Your task to perform on an android device: Search for Mexican restaurants on Maps Image 0: 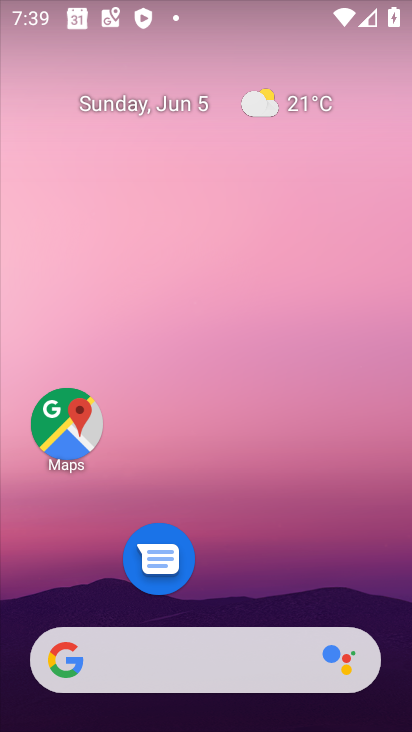
Step 0: click (43, 429)
Your task to perform on an android device: Search for Mexican restaurants on Maps Image 1: 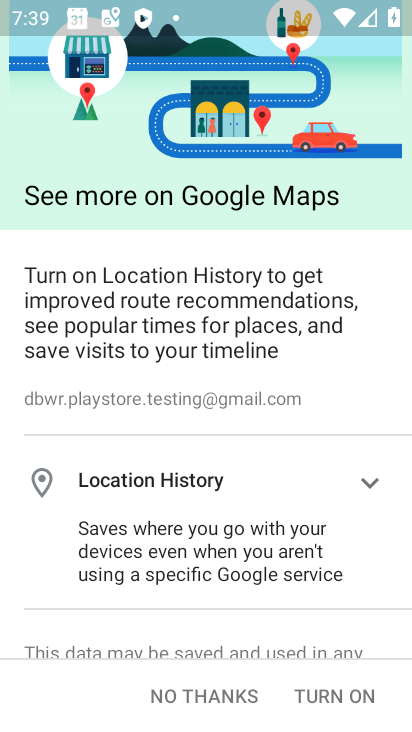
Step 1: click (354, 706)
Your task to perform on an android device: Search for Mexican restaurants on Maps Image 2: 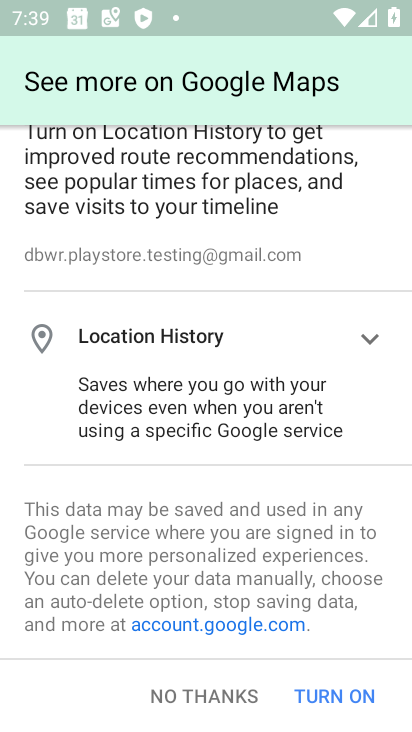
Step 2: click (351, 704)
Your task to perform on an android device: Search for Mexican restaurants on Maps Image 3: 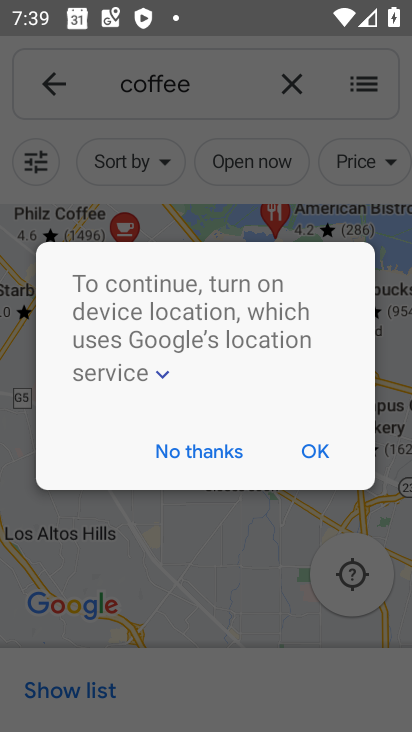
Step 3: drag from (322, 459) to (269, 459)
Your task to perform on an android device: Search for Mexican restaurants on Maps Image 4: 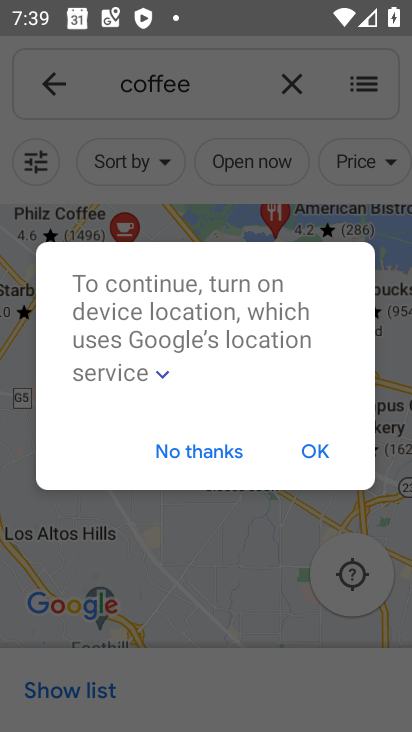
Step 4: click (335, 447)
Your task to perform on an android device: Search for Mexican restaurants on Maps Image 5: 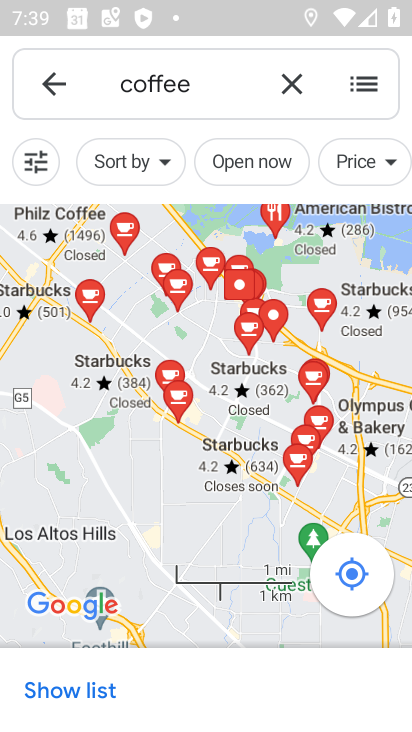
Step 5: drag from (275, 106) to (328, 106)
Your task to perform on an android device: Search for Mexican restaurants on Maps Image 6: 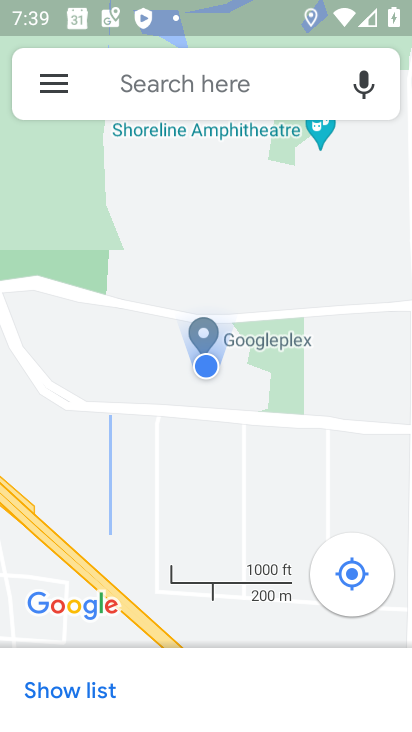
Step 6: click (288, 89)
Your task to perform on an android device: Search for Mexican restaurants on Maps Image 7: 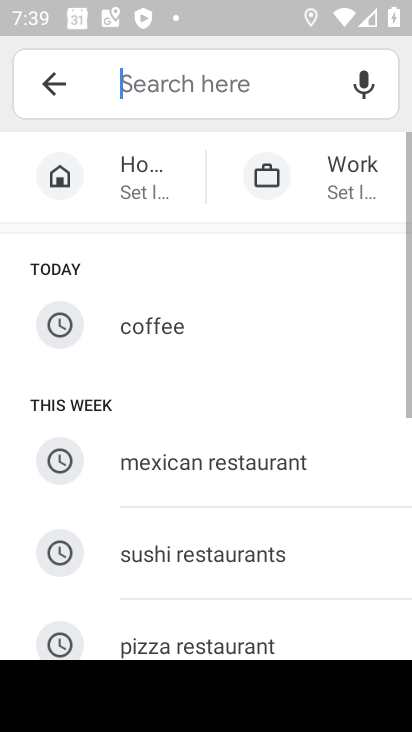
Step 7: click (196, 456)
Your task to perform on an android device: Search for Mexican restaurants on Maps Image 8: 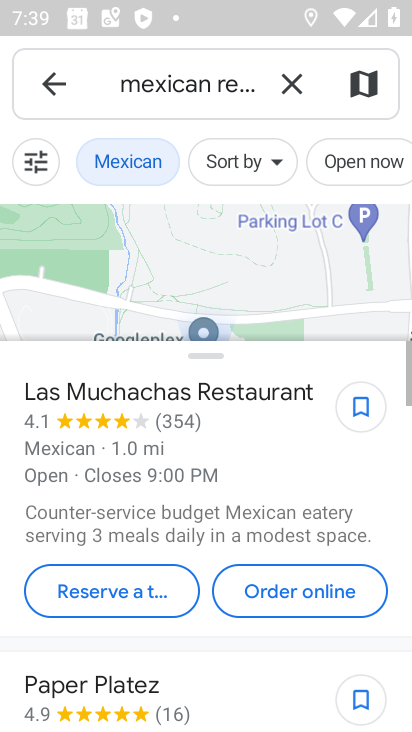
Step 8: task complete